Your task to perform on an android device: Open calendar and show me the fourth week of next month Image 0: 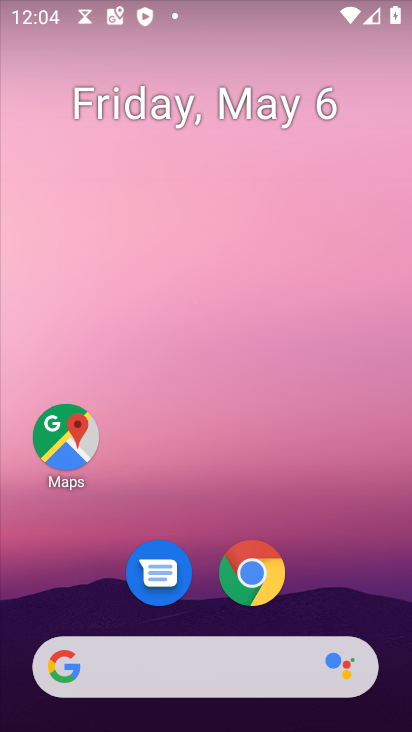
Step 0: drag from (334, 603) to (305, 226)
Your task to perform on an android device: Open calendar and show me the fourth week of next month Image 1: 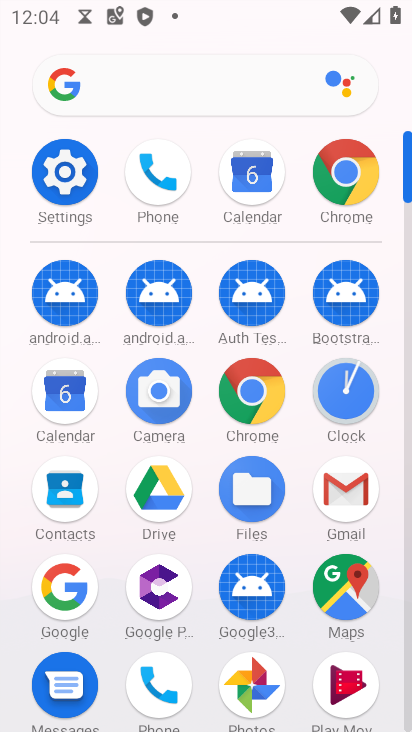
Step 1: click (74, 396)
Your task to perform on an android device: Open calendar and show me the fourth week of next month Image 2: 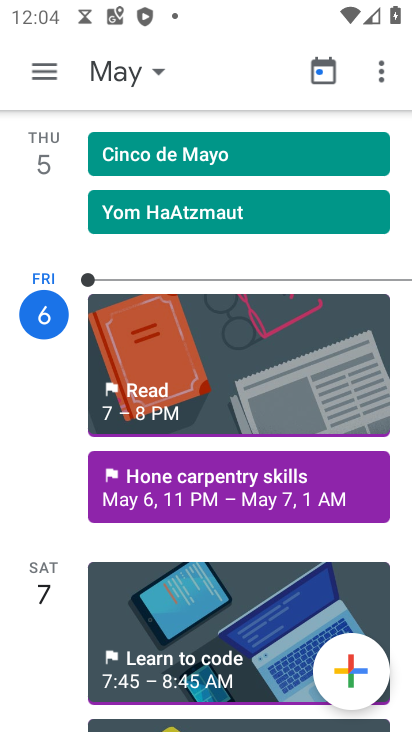
Step 2: click (39, 72)
Your task to perform on an android device: Open calendar and show me the fourth week of next month Image 3: 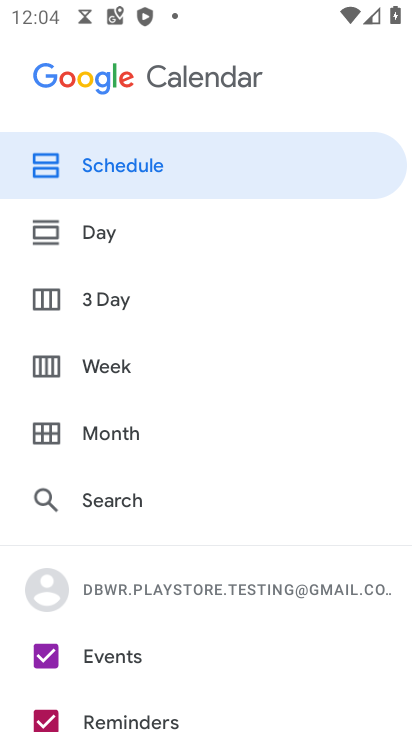
Step 3: click (118, 376)
Your task to perform on an android device: Open calendar and show me the fourth week of next month Image 4: 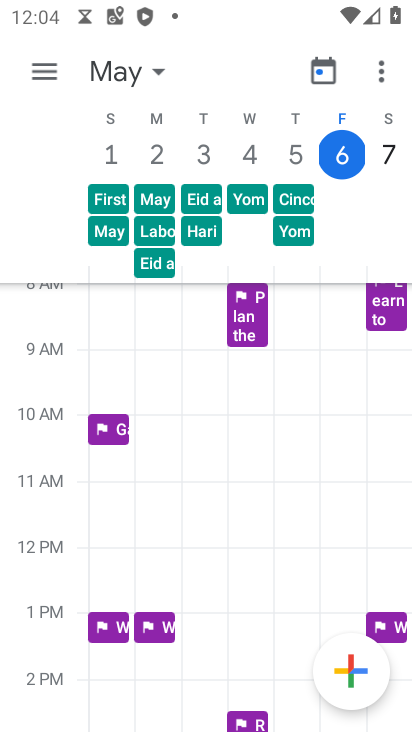
Step 4: click (51, 71)
Your task to perform on an android device: Open calendar and show me the fourth week of next month Image 5: 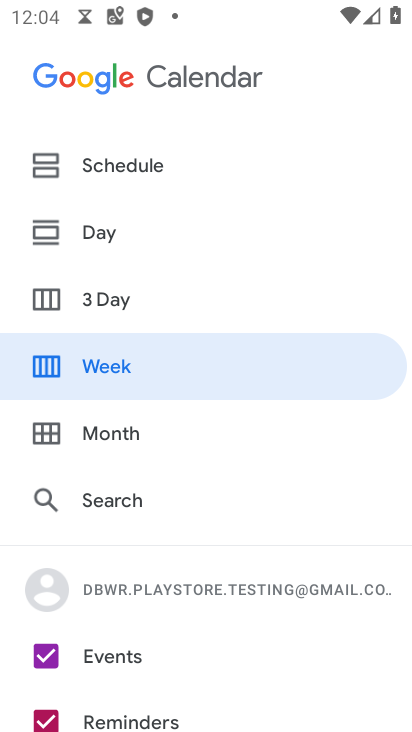
Step 5: click (114, 438)
Your task to perform on an android device: Open calendar and show me the fourth week of next month Image 6: 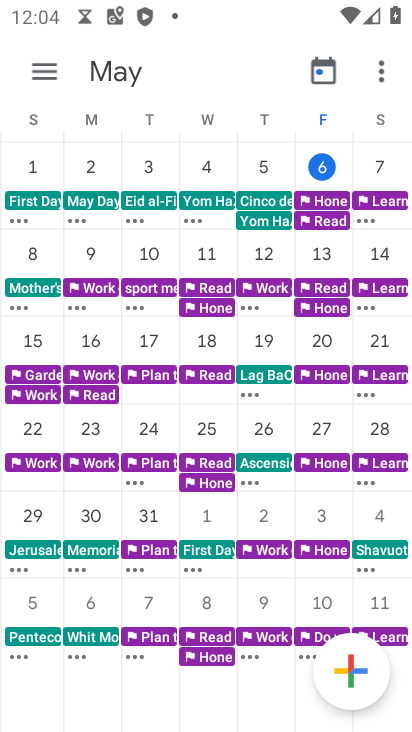
Step 6: click (34, 69)
Your task to perform on an android device: Open calendar and show me the fourth week of next month Image 7: 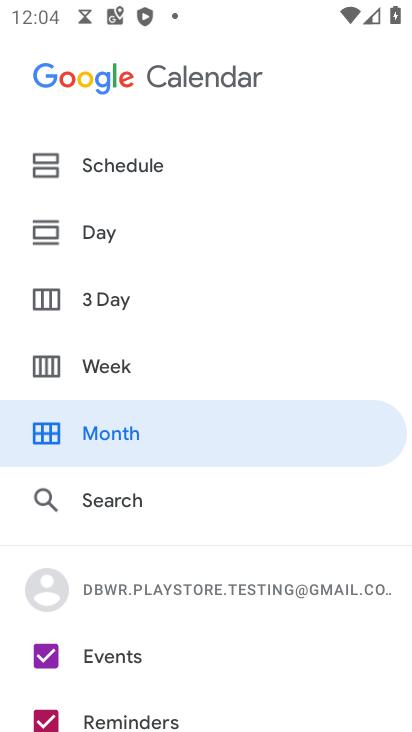
Step 7: click (143, 373)
Your task to perform on an android device: Open calendar and show me the fourth week of next month Image 8: 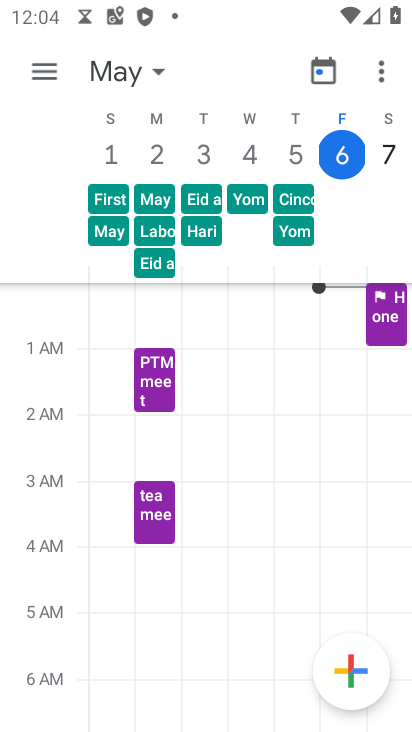
Step 8: click (249, 152)
Your task to perform on an android device: Open calendar and show me the fourth week of next month Image 9: 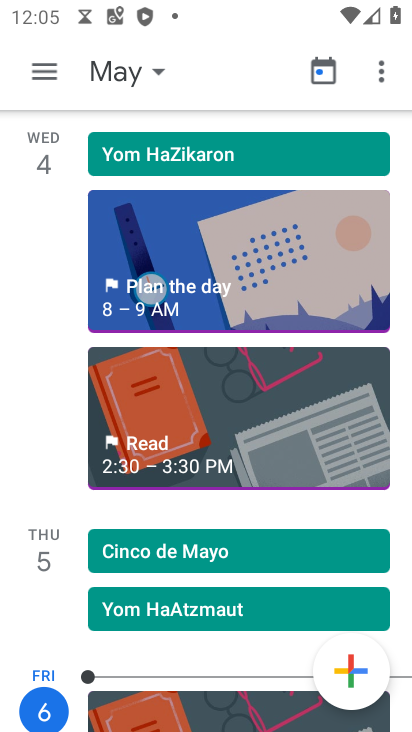
Step 9: click (50, 81)
Your task to perform on an android device: Open calendar and show me the fourth week of next month Image 10: 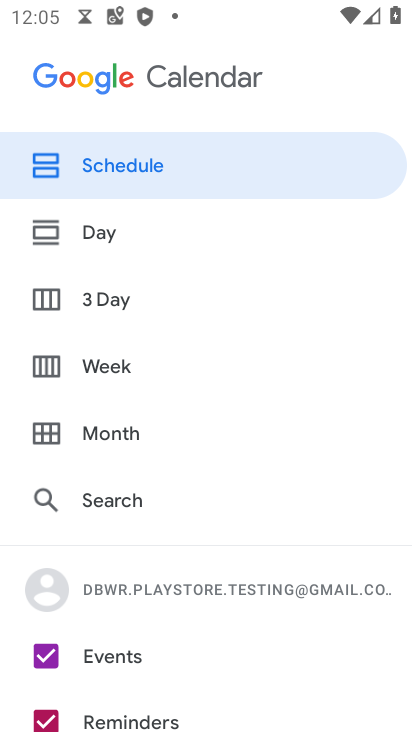
Step 10: click (132, 435)
Your task to perform on an android device: Open calendar and show me the fourth week of next month Image 11: 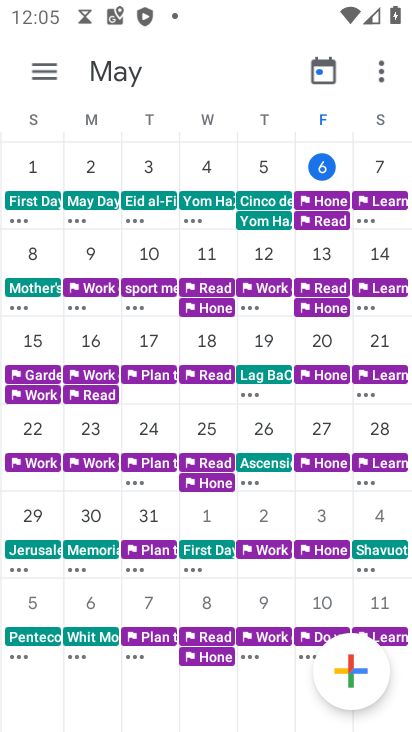
Step 11: task complete